Your task to perform on an android device: Search for vegetarian restaurants on Maps Image 0: 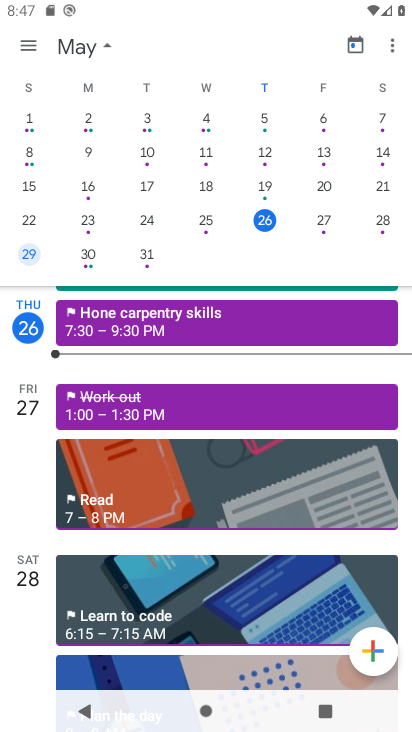
Step 0: press home button
Your task to perform on an android device: Search for vegetarian restaurants on Maps Image 1: 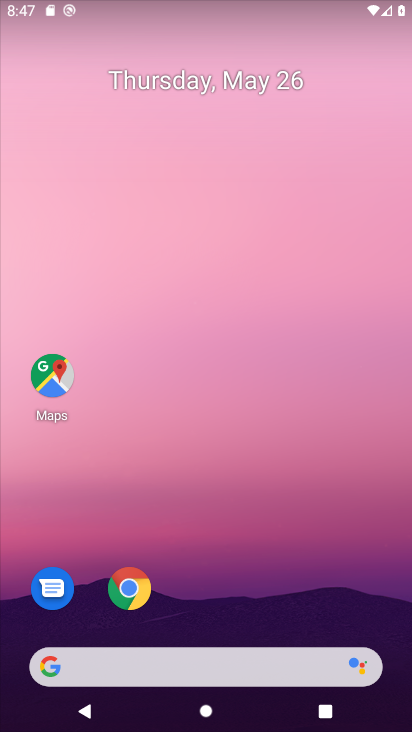
Step 1: click (47, 379)
Your task to perform on an android device: Search for vegetarian restaurants on Maps Image 2: 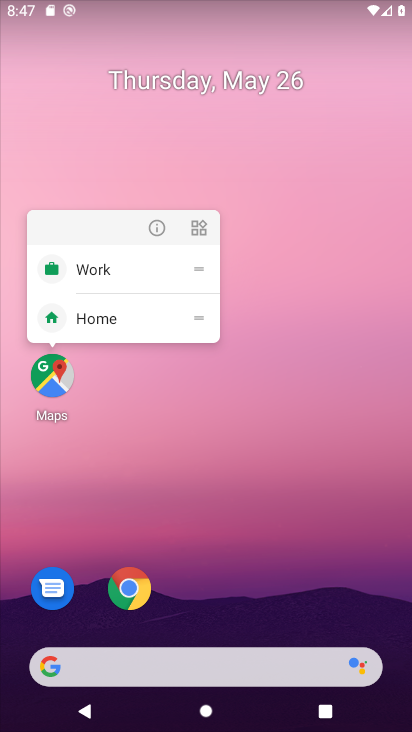
Step 2: click (48, 377)
Your task to perform on an android device: Search for vegetarian restaurants on Maps Image 3: 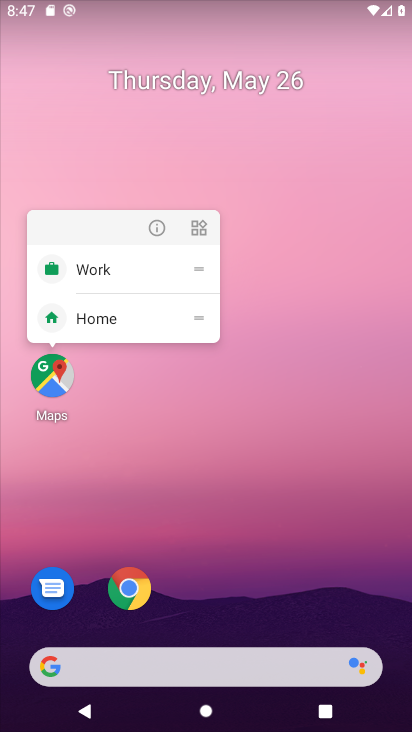
Step 3: click (49, 377)
Your task to perform on an android device: Search for vegetarian restaurants on Maps Image 4: 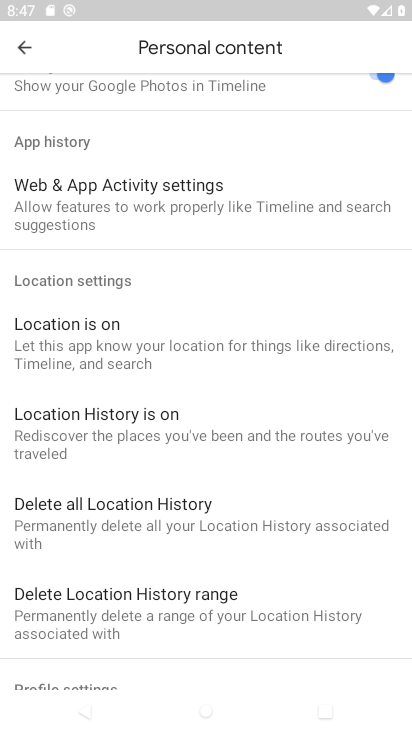
Step 4: click (20, 42)
Your task to perform on an android device: Search for vegetarian restaurants on Maps Image 5: 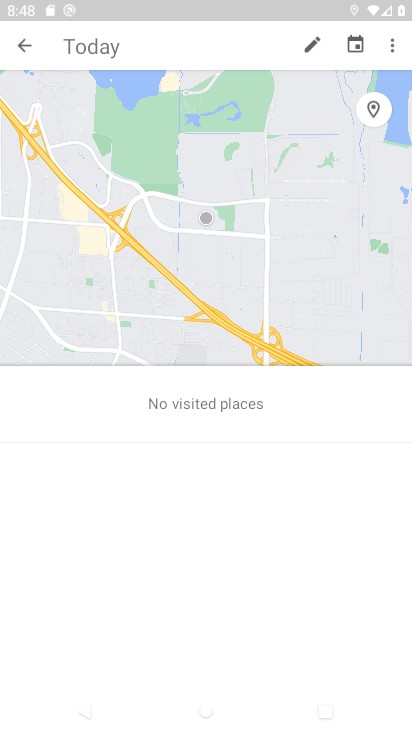
Step 5: click (20, 42)
Your task to perform on an android device: Search for vegetarian restaurants on Maps Image 6: 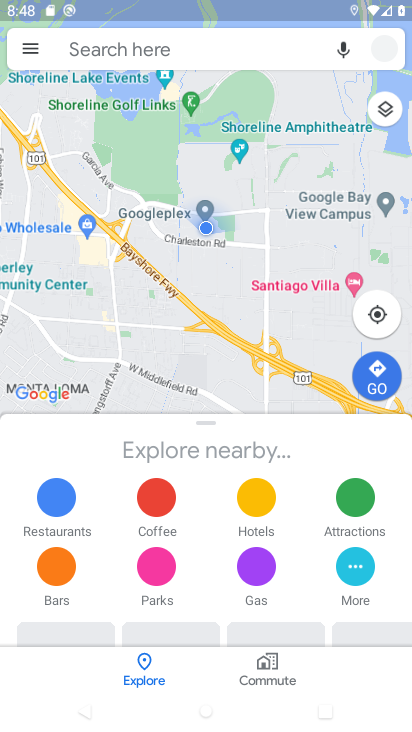
Step 6: click (155, 50)
Your task to perform on an android device: Search for vegetarian restaurants on Maps Image 7: 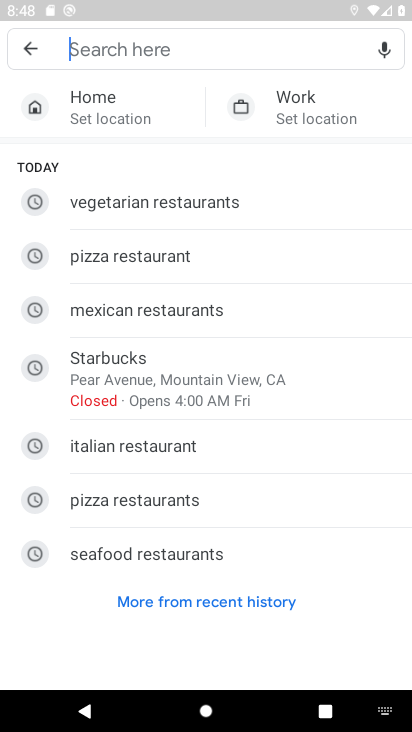
Step 7: type "vegetarian restaurants"
Your task to perform on an android device: Search for vegetarian restaurants on Maps Image 8: 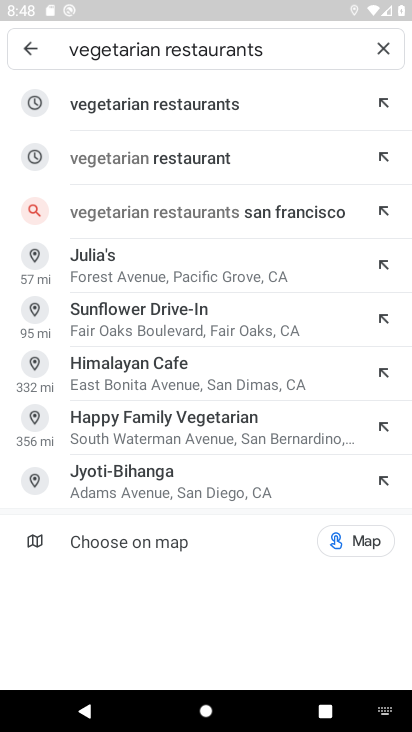
Step 8: click (159, 101)
Your task to perform on an android device: Search for vegetarian restaurants on Maps Image 9: 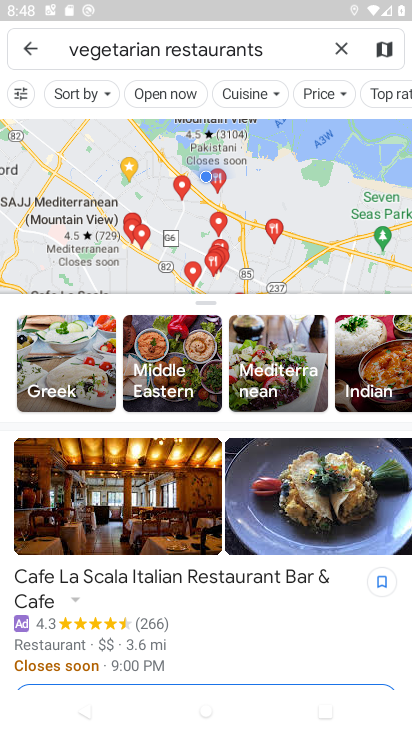
Step 9: task complete